Your task to perform on an android device: empty trash in google photos Image 0: 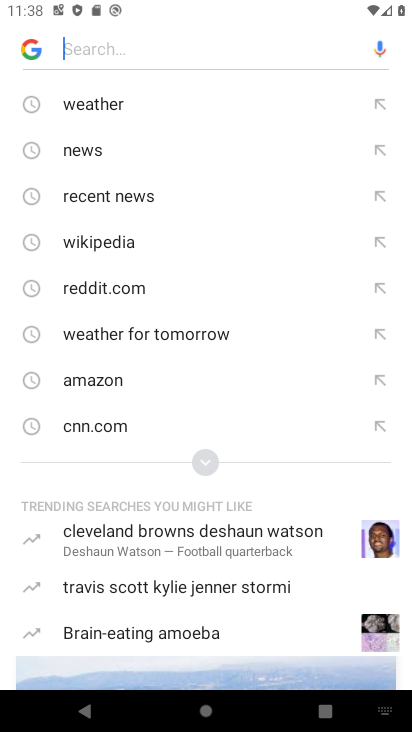
Step 0: press back button
Your task to perform on an android device: empty trash in google photos Image 1: 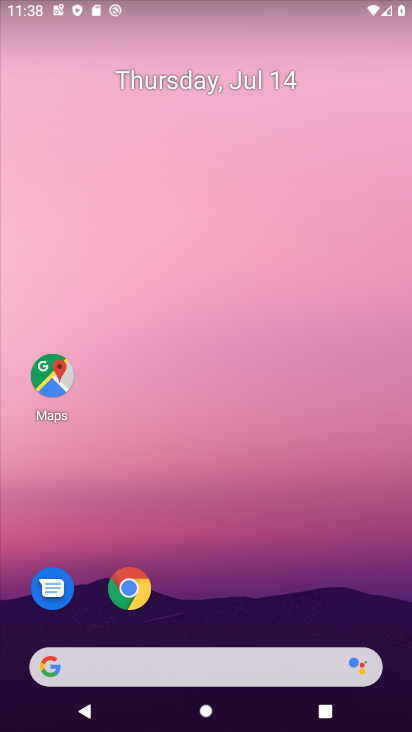
Step 1: drag from (177, 586) to (262, 0)
Your task to perform on an android device: empty trash in google photos Image 2: 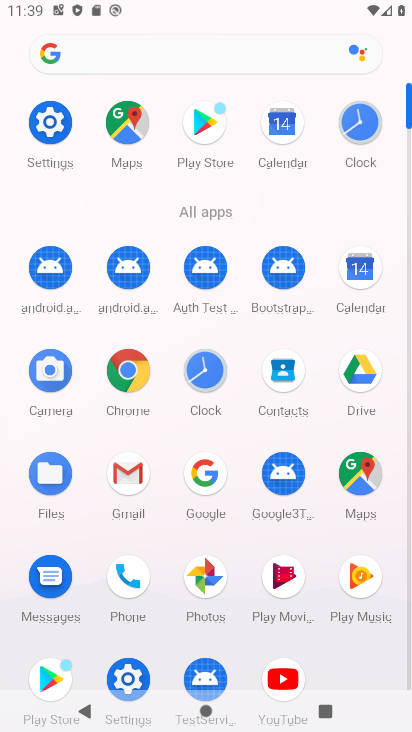
Step 2: click (202, 581)
Your task to perform on an android device: empty trash in google photos Image 3: 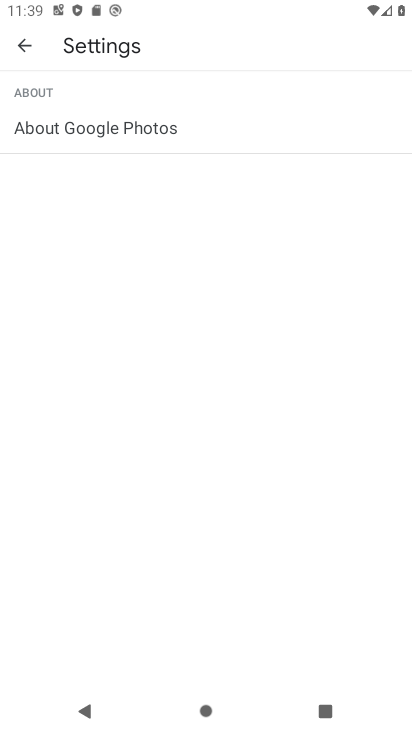
Step 3: click (21, 33)
Your task to perform on an android device: empty trash in google photos Image 4: 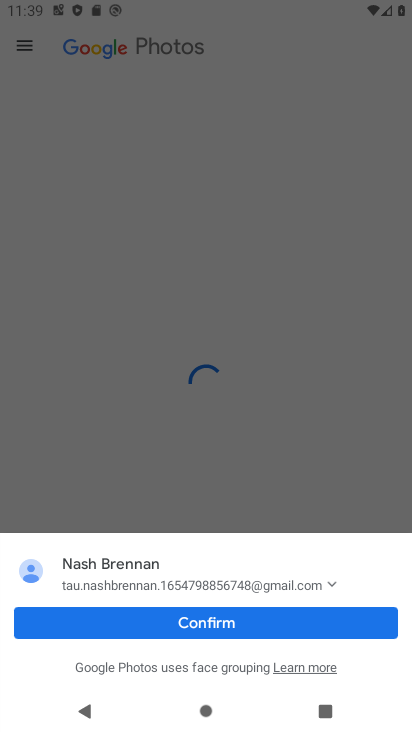
Step 4: click (25, 42)
Your task to perform on an android device: empty trash in google photos Image 5: 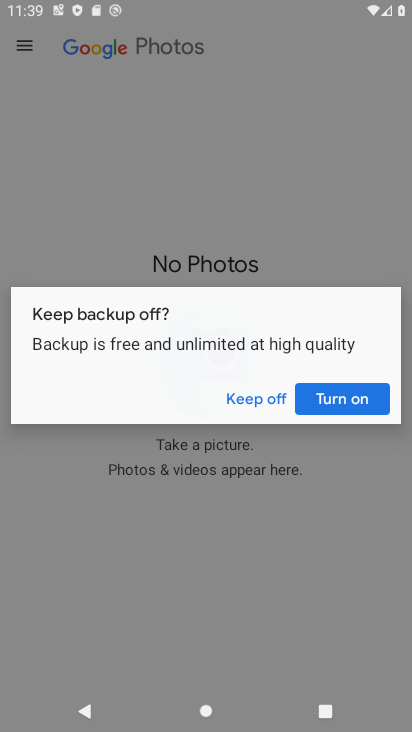
Step 5: click (199, 610)
Your task to perform on an android device: empty trash in google photos Image 6: 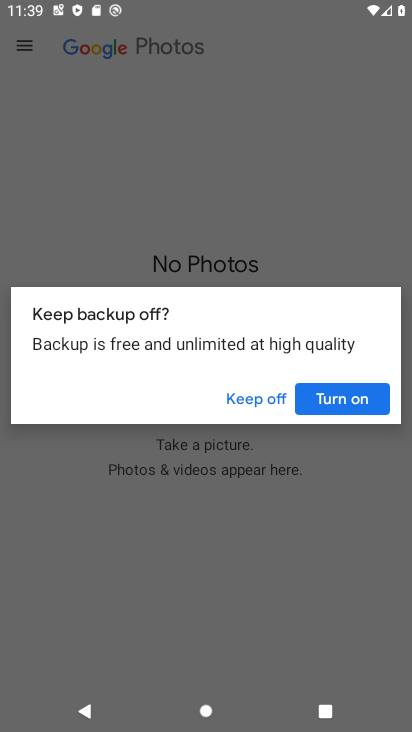
Step 6: click (229, 388)
Your task to perform on an android device: empty trash in google photos Image 7: 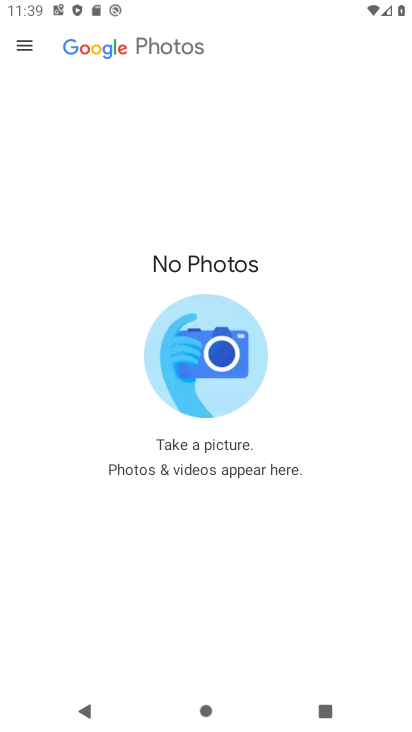
Step 7: click (31, 48)
Your task to perform on an android device: empty trash in google photos Image 8: 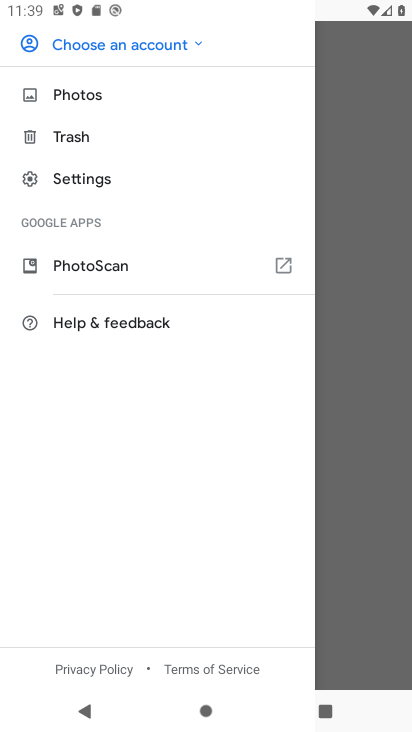
Step 8: click (76, 126)
Your task to perform on an android device: empty trash in google photos Image 9: 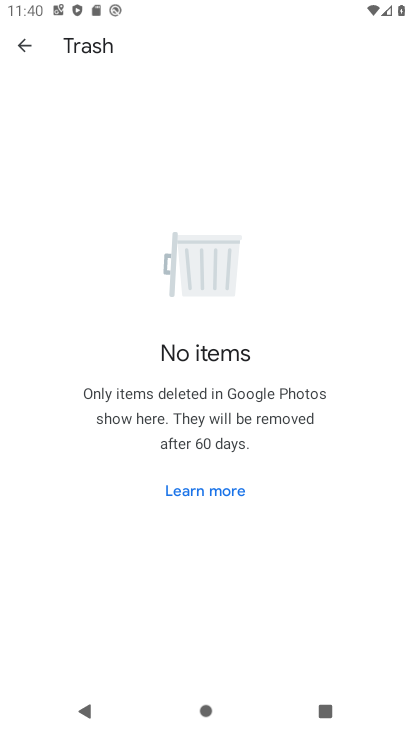
Step 9: task complete